Your task to perform on an android device: open the mobile data screen to see how much data has been used Image 0: 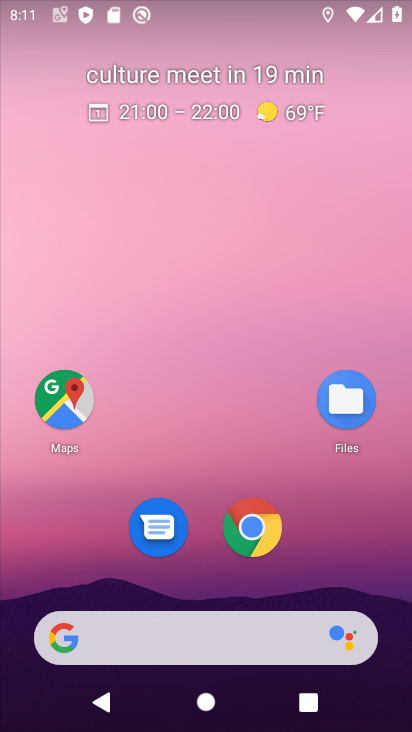
Step 0: drag from (293, 563) to (309, 109)
Your task to perform on an android device: open the mobile data screen to see how much data has been used Image 1: 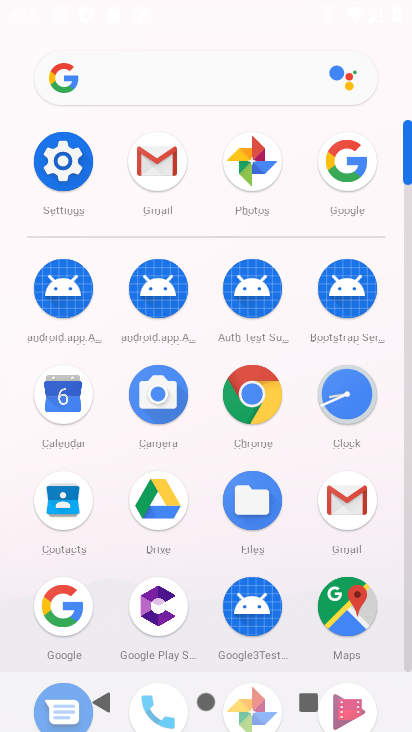
Step 1: click (62, 163)
Your task to perform on an android device: open the mobile data screen to see how much data has been used Image 2: 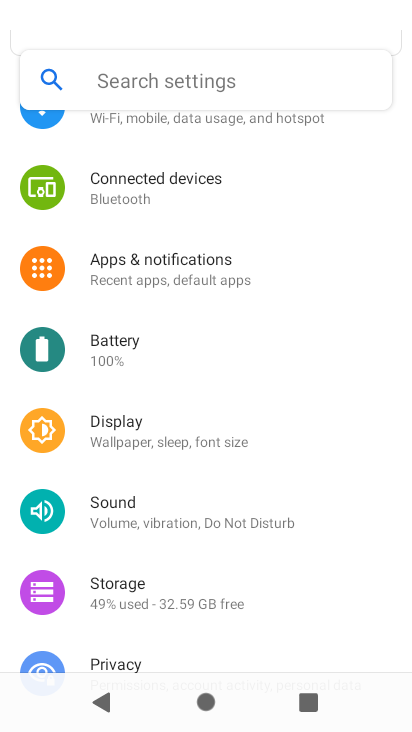
Step 2: drag from (164, 171) to (186, 406)
Your task to perform on an android device: open the mobile data screen to see how much data has been used Image 3: 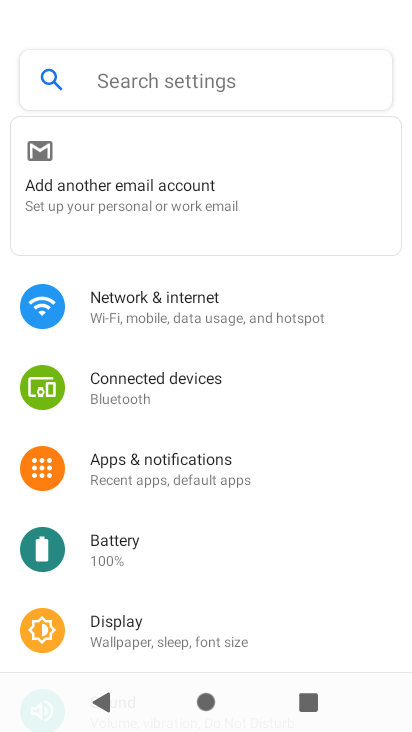
Step 3: click (133, 300)
Your task to perform on an android device: open the mobile data screen to see how much data has been used Image 4: 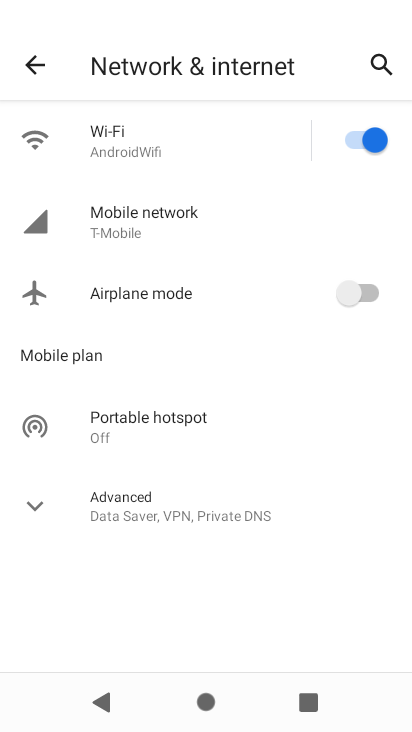
Step 4: click (105, 231)
Your task to perform on an android device: open the mobile data screen to see how much data has been used Image 5: 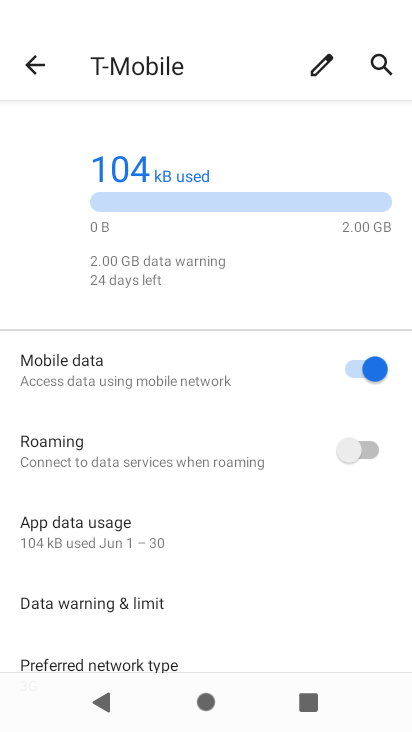
Step 5: click (182, 234)
Your task to perform on an android device: open the mobile data screen to see how much data has been used Image 6: 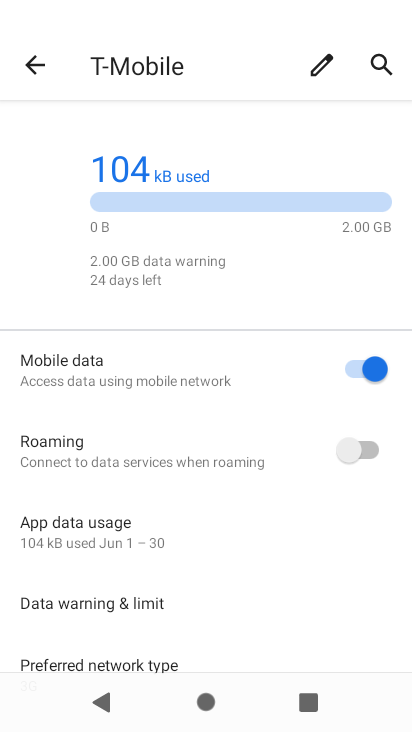
Step 6: task complete